Your task to perform on an android device: Open Youtube and go to the subscriptions tab Image 0: 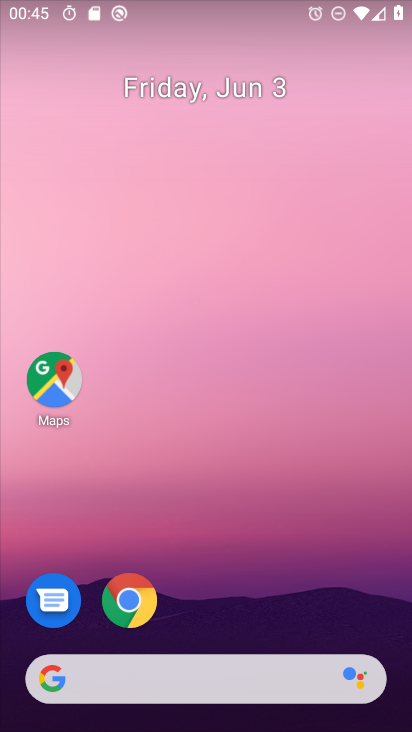
Step 0: drag from (263, 548) to (236, 43)
Your task to perform on an android device: Open Youtube and go to the subscriptions tab Image 1: 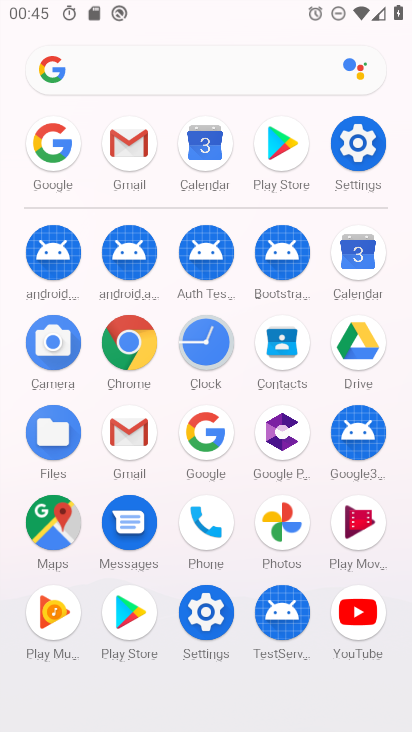
Step 1: click (354, 606)
Your task to perform on an android device: Open Youtube and go to the subscriptions tab Image 2: 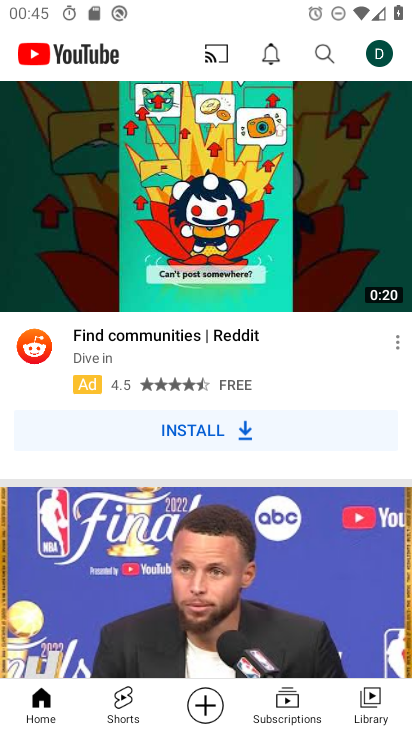
Step 2: click (279, 706)
Your task to perform on an android device: Open Youtube and go to the subscriptions tab Image 3: 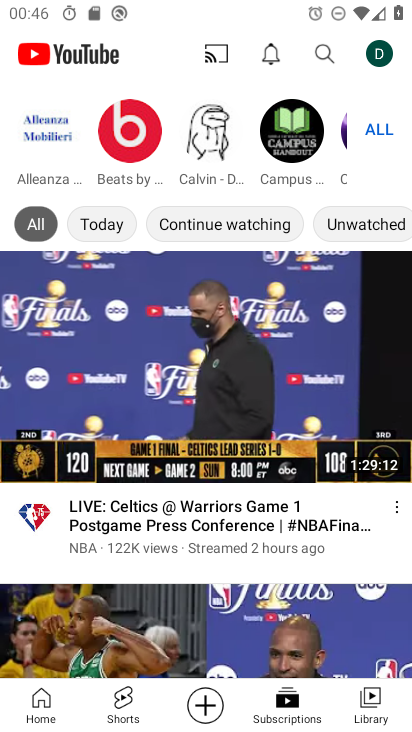
Step 3: task complete